Your task to perform on an android device: open app "Nova Launcher" (install if not already installed), go to login, and select forgot password Image 0: 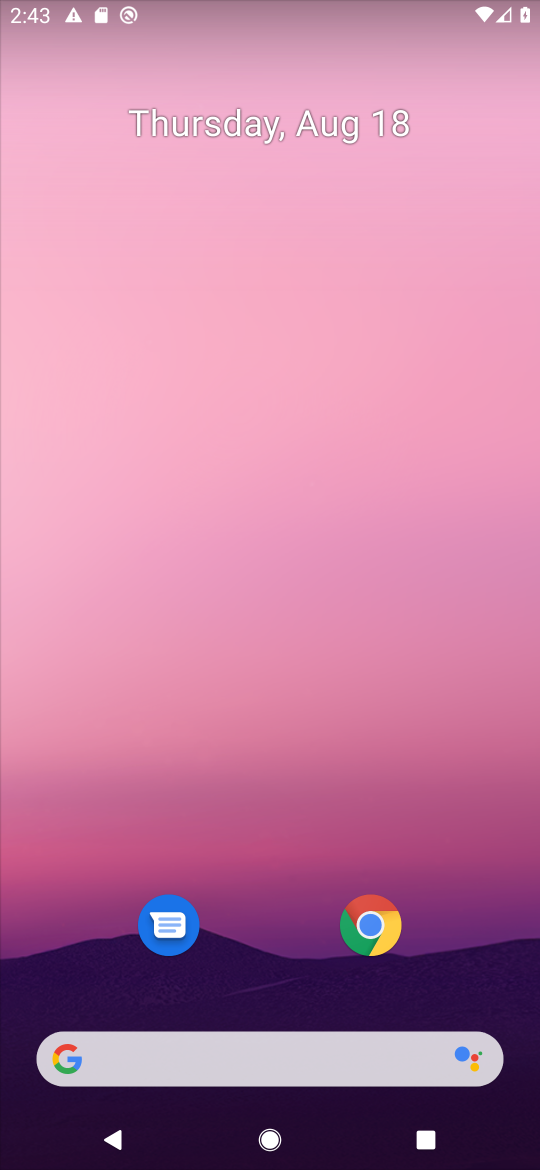
Step 0: drag from (238, 756) to (236, 294)
Your task to perform on an android device: open app "Nova Launcher" (install if not already installed), go to login, and select forgot password Image 1: 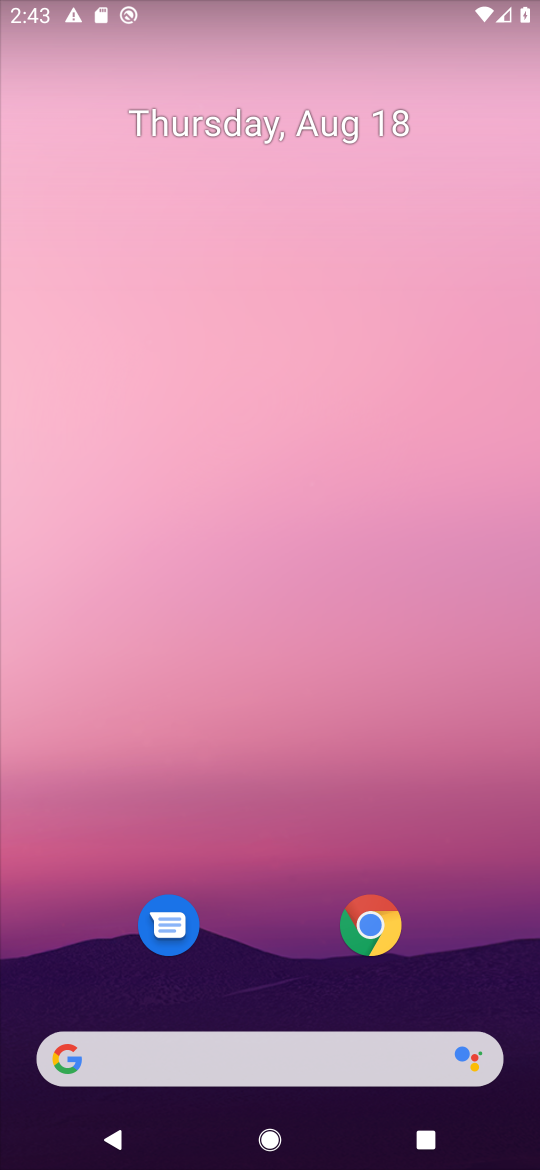
Step 1: drag from (255, 950) to (263, 132)
Your task to perform on an android device: open app "Nova Launcher" (install if not already installed), go to login, and select forgot password Image 2: 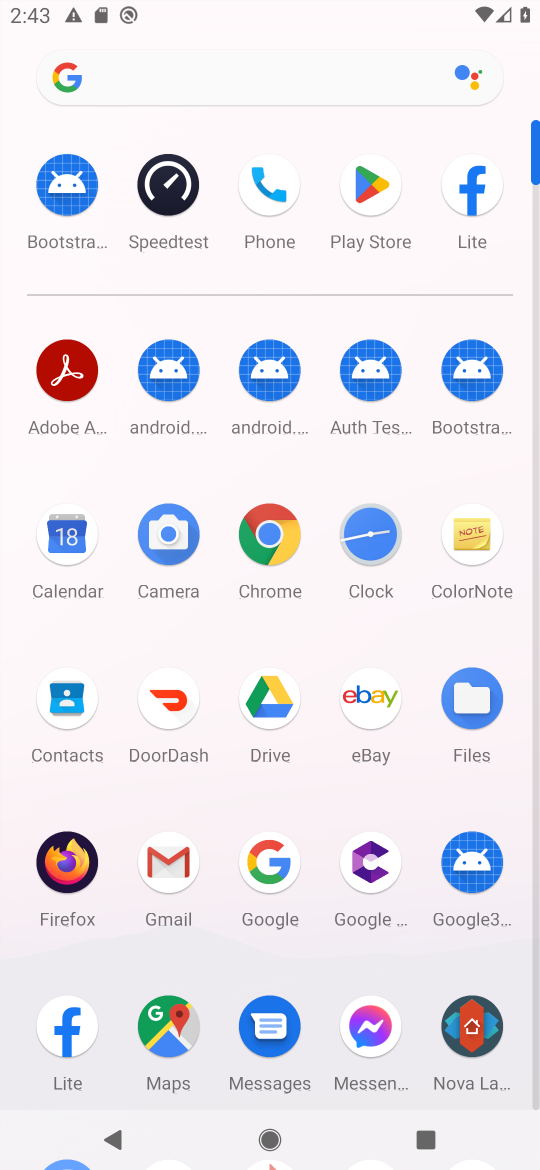
Step 2: click (358, 184)
Your task to perform on an android device: open app "Nova Launcher" (install if not already installed), go to login, and select forgot password Image 3: 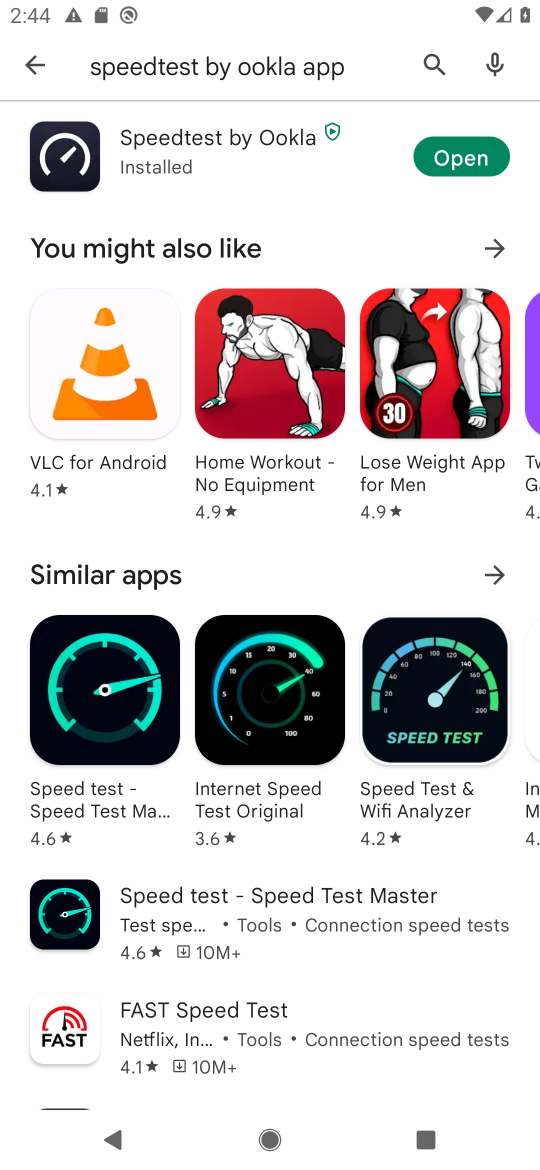
Step 3: click (30, 60)
Your task to perform on an android device: open app "Nova Launcher" (install if not already installed), go to login, and select forgot password Image 4: 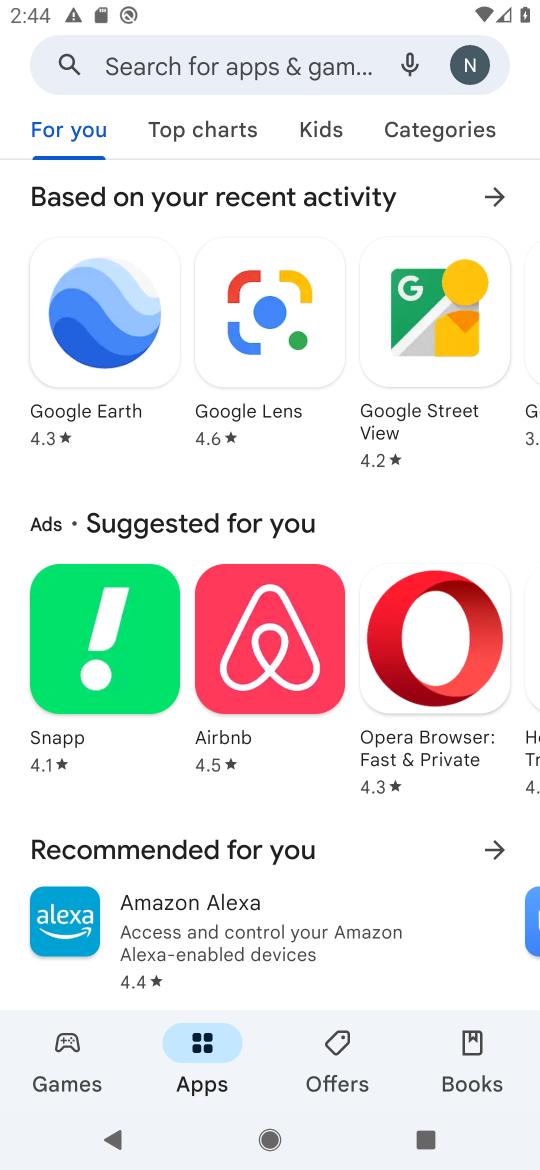
Step 4: click (206, 60)
Your task to perform on an android device: open app "Nova Launcher" (install if not already installed), go to login, and select forgot password Image 5: 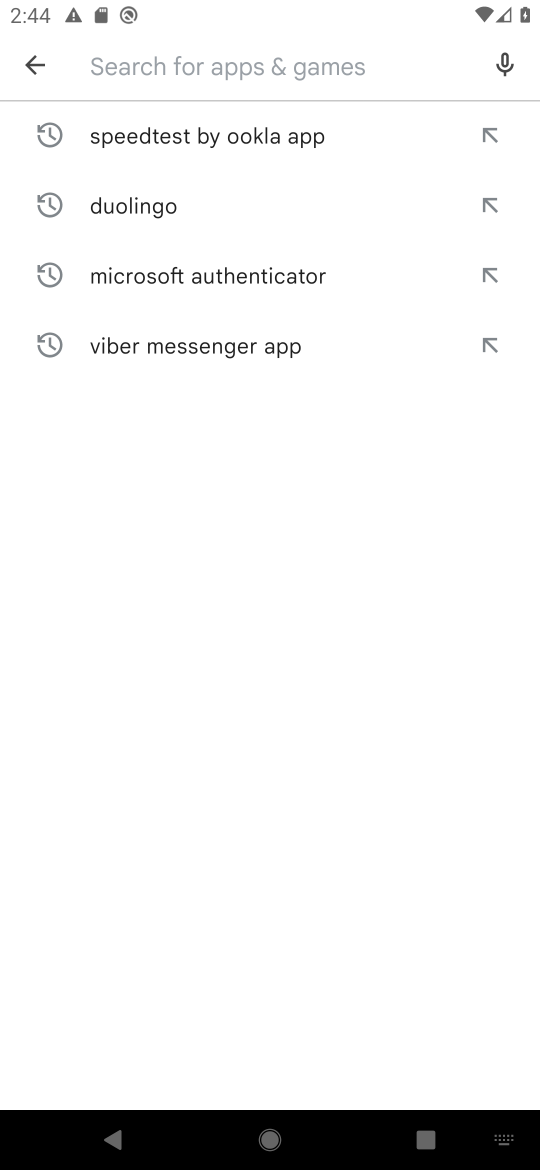
Step 5: type "Nova Launcher"
Your task to perform on an android device: open app "Nova Launcher" (install if not already installed), go to login, and select forgot password Image 6: 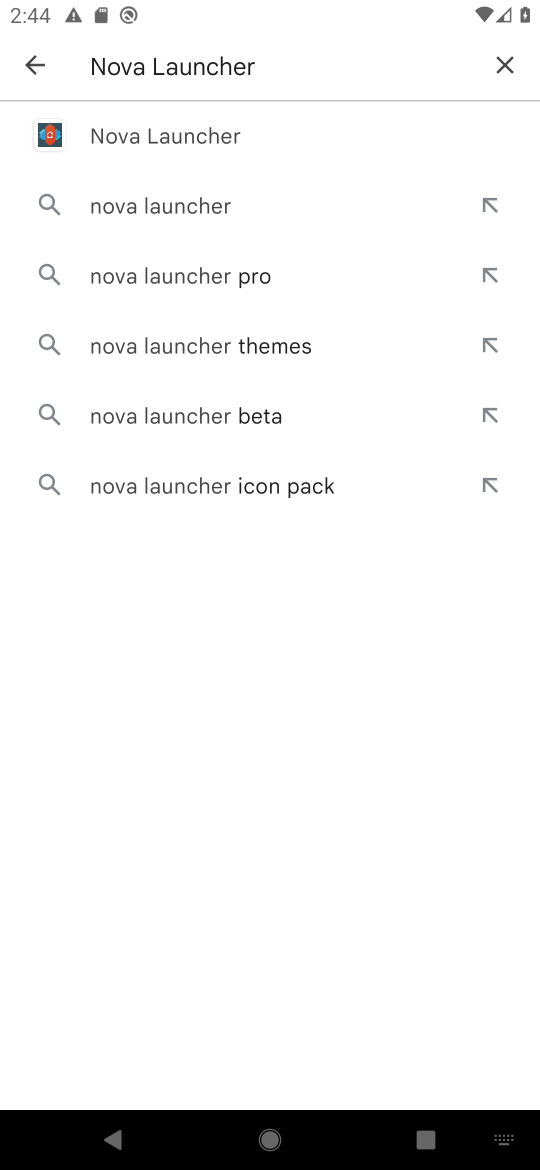
Step 6: click (218, 140)
Your task to perform on an android device: open app "Nova Launcher" (install if not already installed), go to login, and select forgot password Image 7: 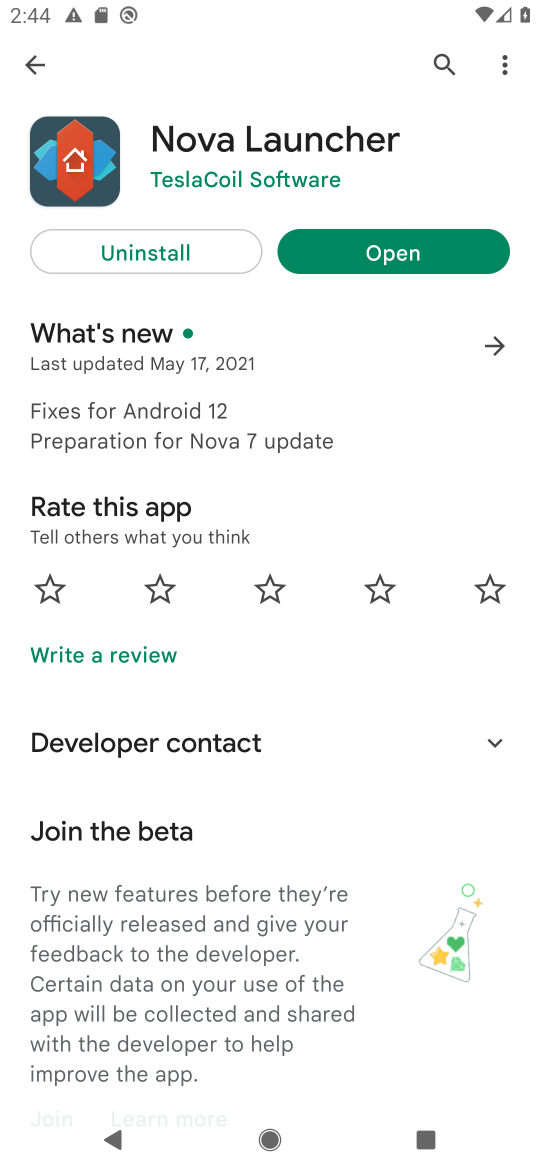
Step 7: click (370, 257)
Your task to perform on an android device: open app "Nova Launcher" (install if not already installed), go to login, and select forgot password Image 8: 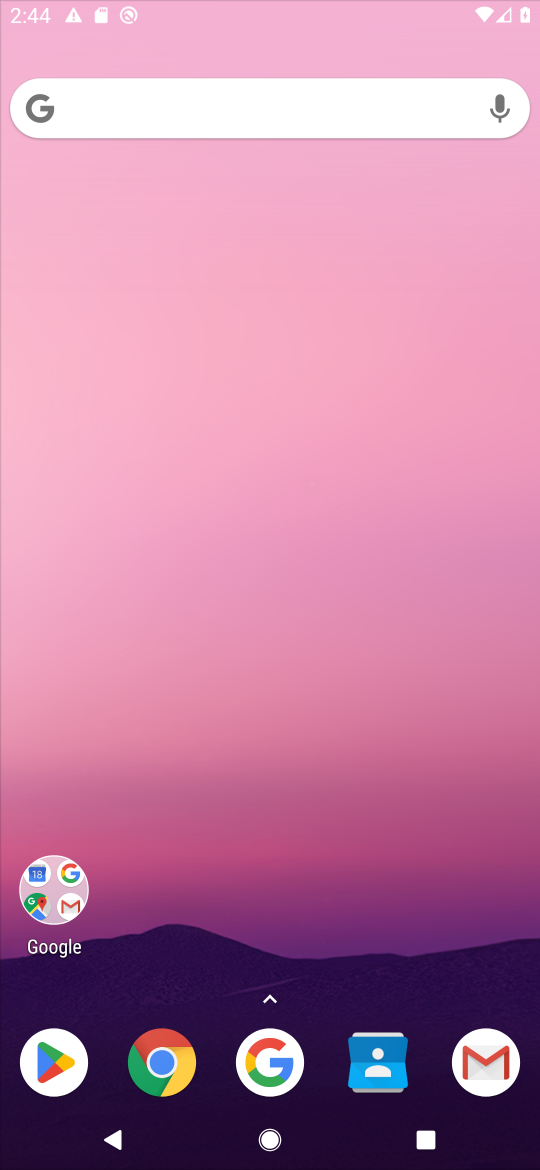
Step 8: click (55, 1068)
Your task to perform on an android device: open app "Nova Launcher" (install if not already installed), go to login, and select forgot password Image 9: 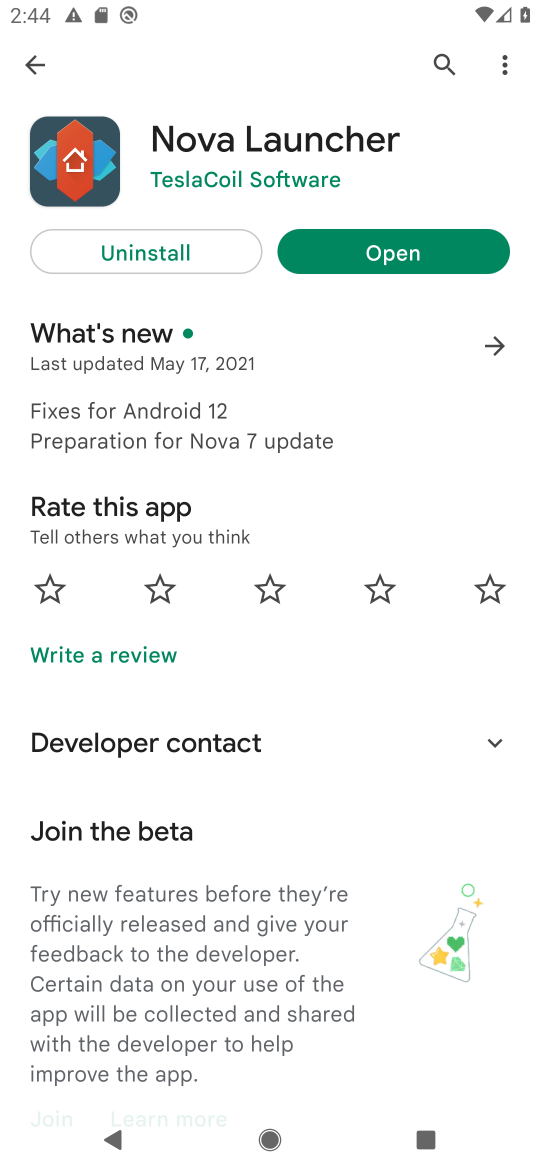
Step 9: click (382, 251)
Your task to perform on an android device: open app "Nova Launcher" (install if not already installed), go to login, and select forgot password Image 10: 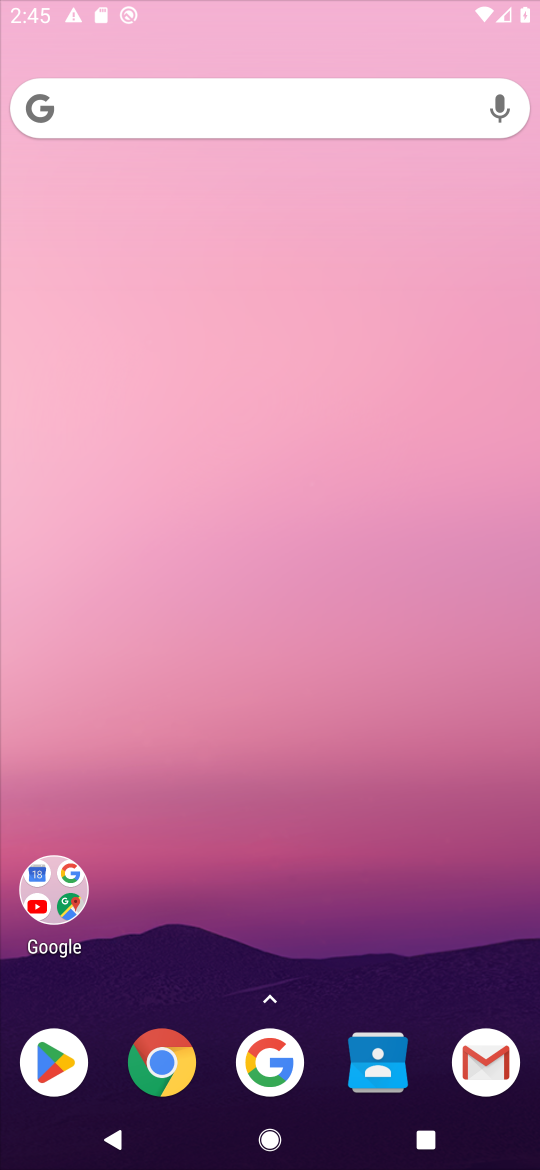
Step 10: click (46, 1071)
Your task to perform on an android device: open app "Nova Launcher" (install if not already installed), go to login, and select forgot password Image 11: 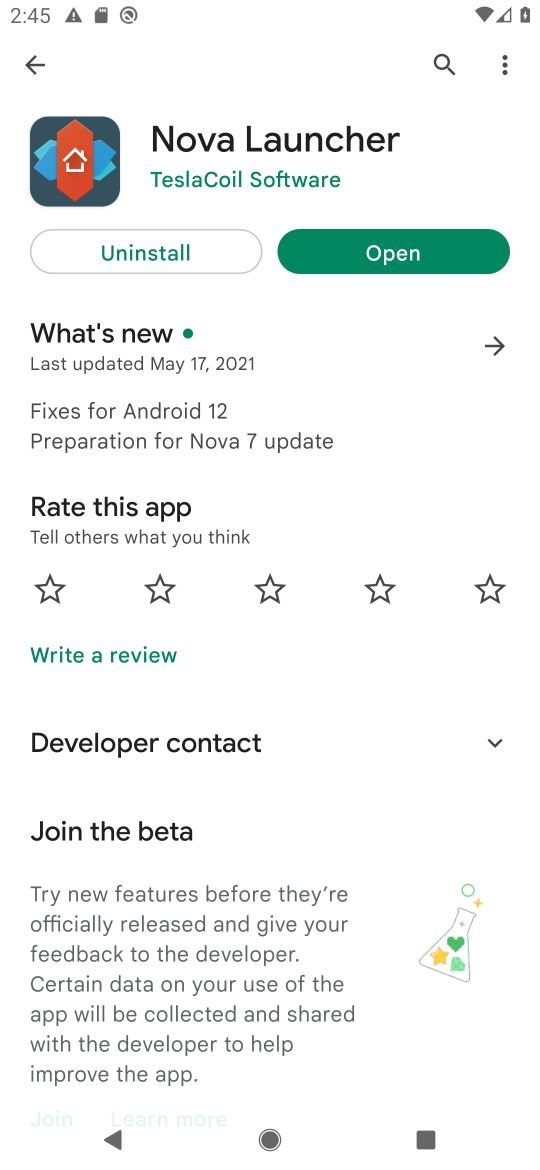
Step 11: click (382, 254)
Your task to perform on an android device: open app "Nova Launcher" (install if not already installed), go to login, and select forgot password Image 12: 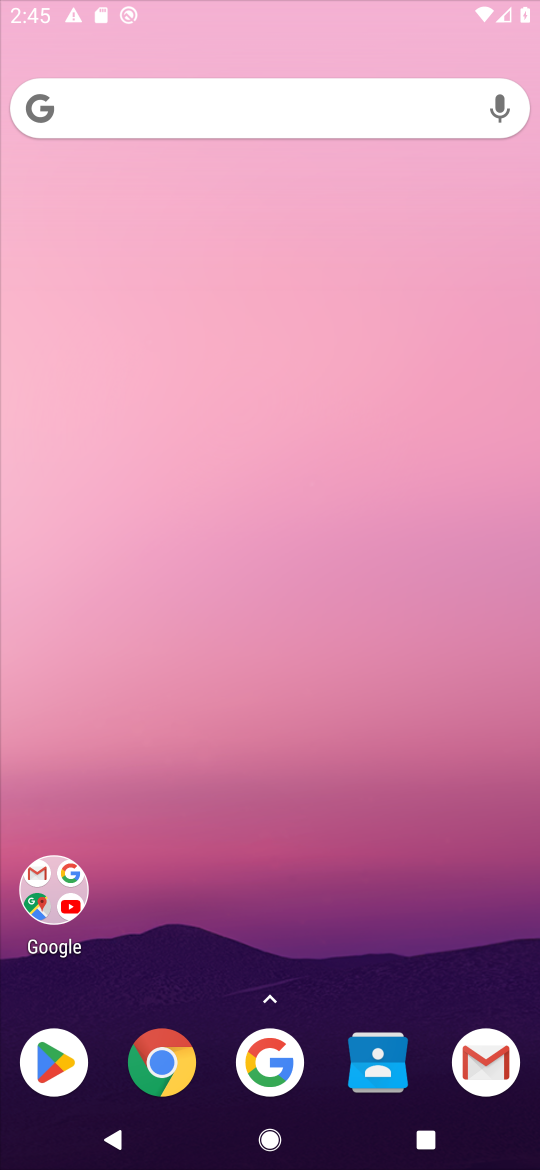
Step 12: click (60, 1069)
Your task to perform on an android device: open app "Nova Launcher" (install if not already installed), go to login, and select forgot password Image 13: 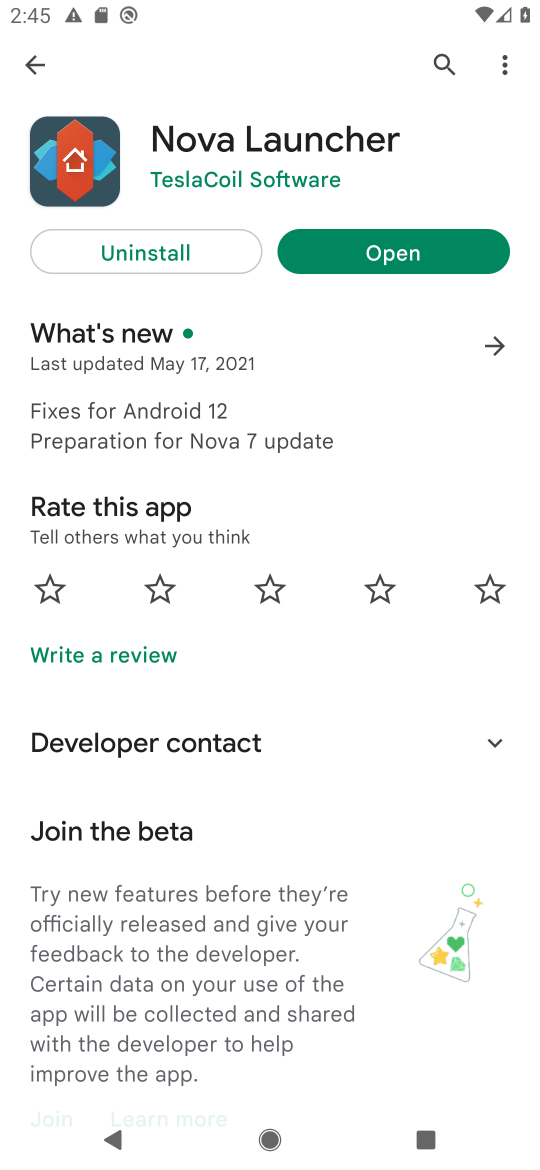
Step 13: click (381, 250)
Your task to perform on an android device: open app "Nova Launcher" (install if not already installed), go to login, and select forgot password Image 14: 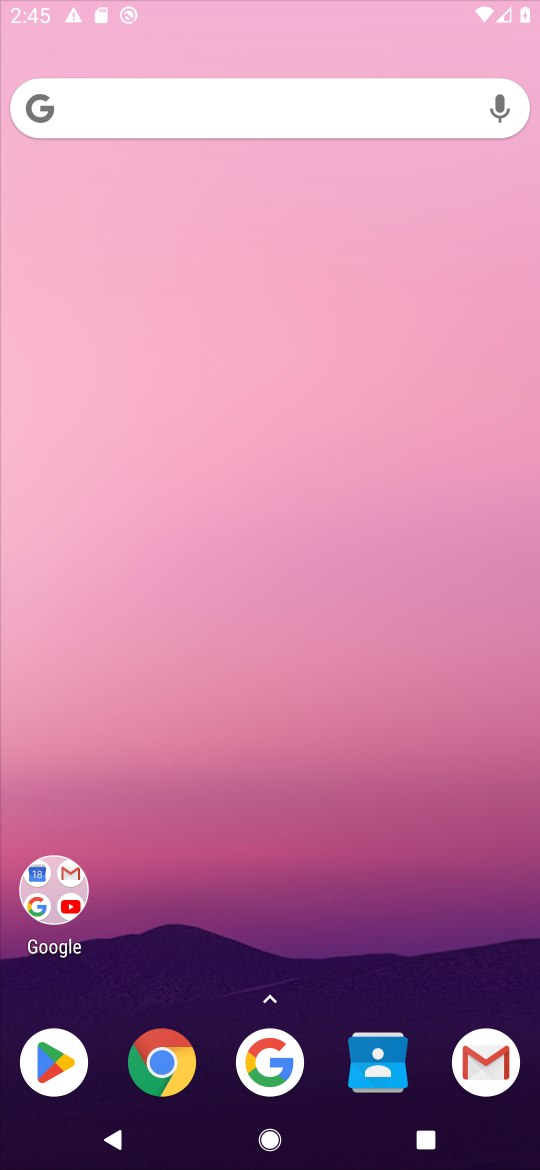
Step 14: task complete